Your task to perform on an android device: delete the emails in spam in the gmail app Image 0: 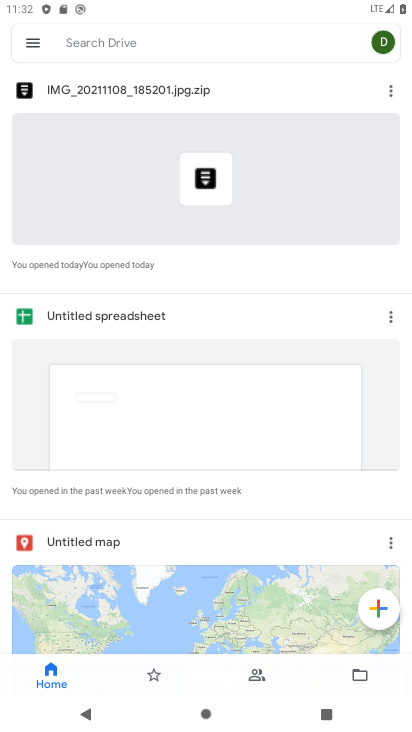
Step 0: press home button
Your task to perform on an android device: delete the emails in spam in the gmail app Image 1: 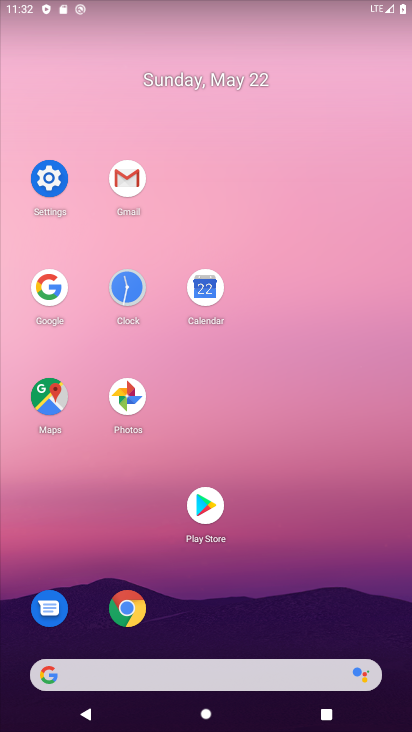
Step 1: click (136, 192)
Your task to perform on an android device: delete the emails in spam in the gmail app Image 2: 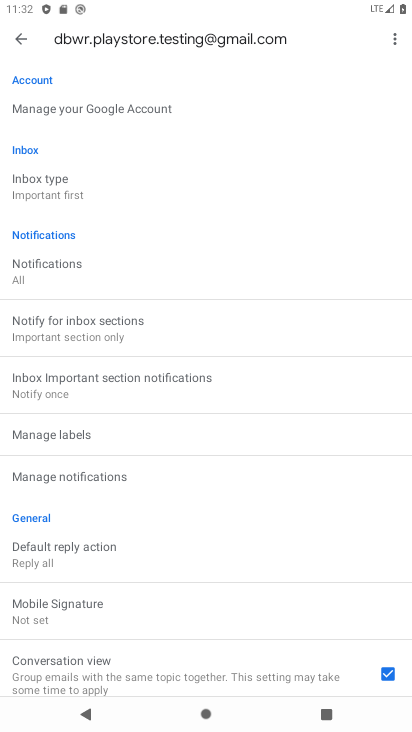
Step 2: click (25, 42)
Your task to perform on an android device: delete the emails in spam in the gmail app Image 3: 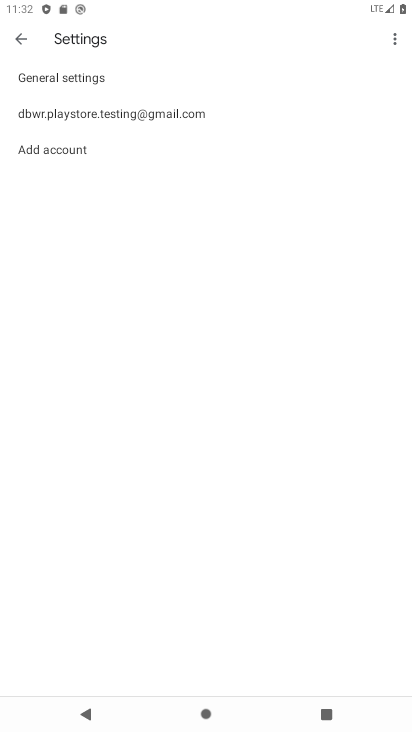
Step 3: click (23, 41)
Your task to perform on an android device: delete the emails in spam in the gmail app Image 4: 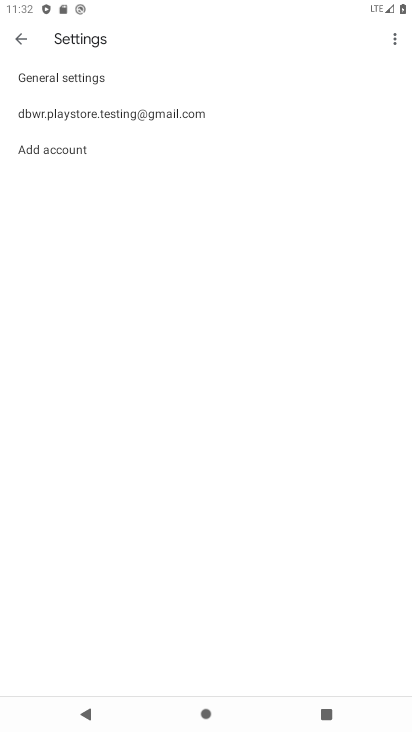
Step 4: click (23, 29)
Your task to perform on an android device: delete the emails in spam in the gmail app Image 5: 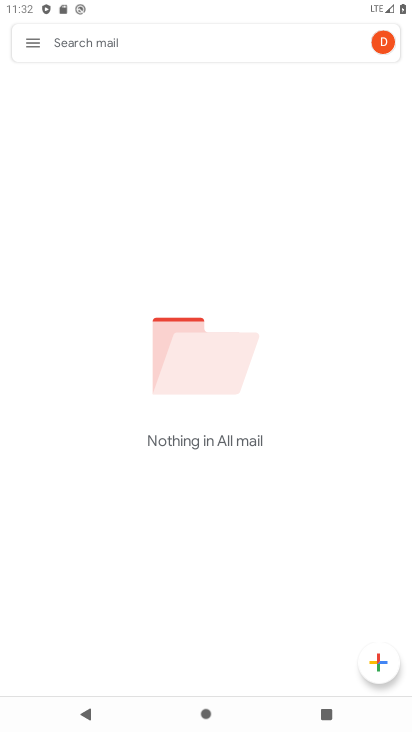
Step 5: click (44, 39)
Your task to perform on an android device: delete the emails in spam in the gmail app Image 6: 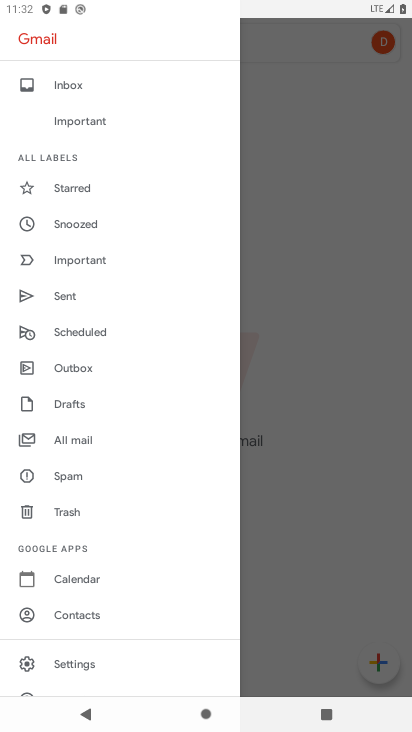
Step 6: click (127, 478)
Your task to perform on an android device: delete the emails in spam in the gmail app Image 7: 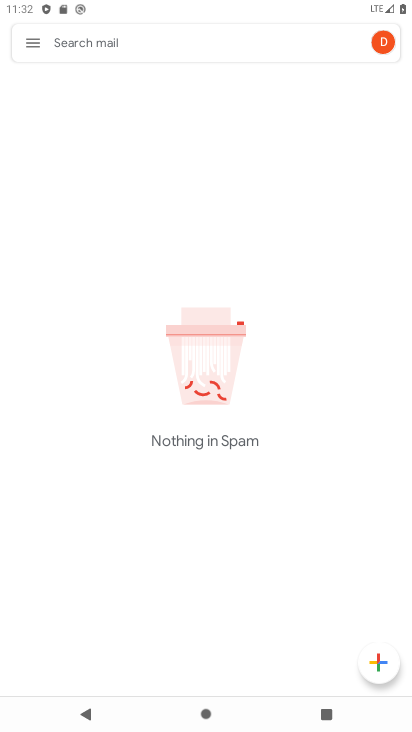
Step 7: task complete